Your task to perform on an android device: open app "Google Maps" Image 0: 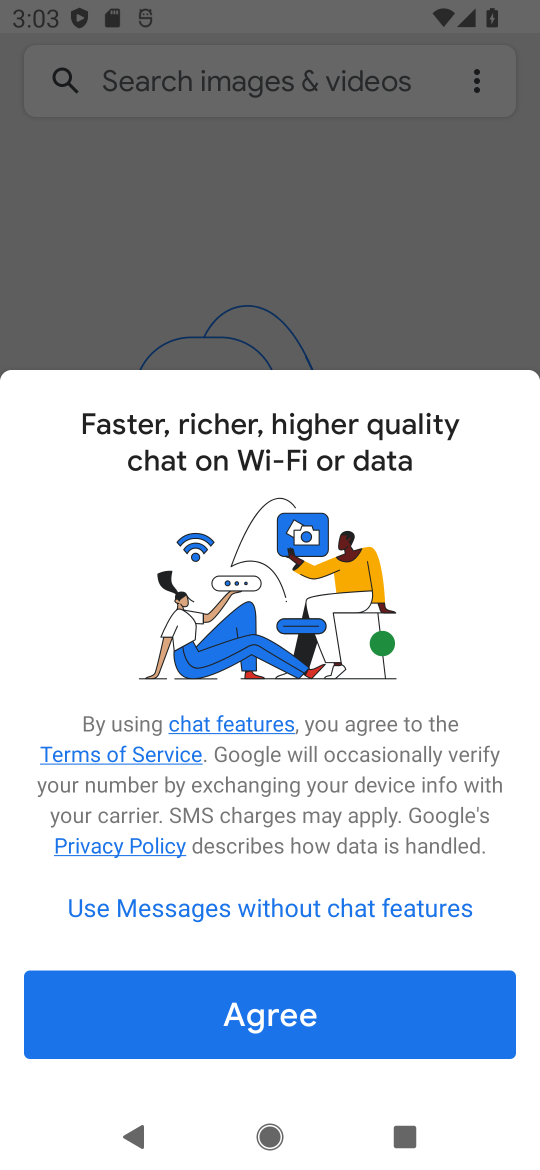
Step 0: press home button
Your task to perform on an android device: open app "Google Maps" Image 1: 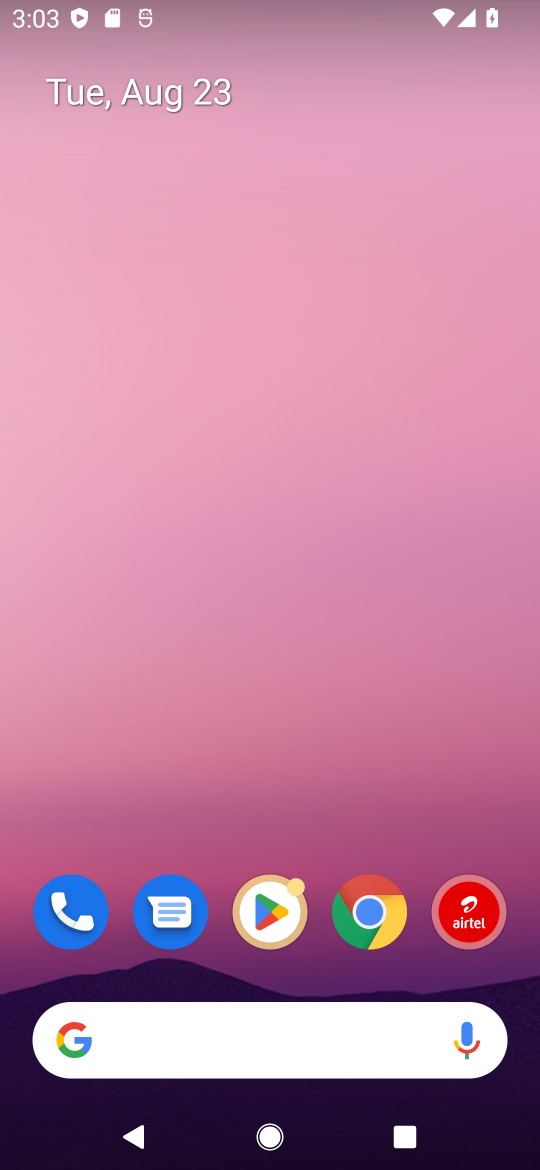
Step 1: drag from (228, 1037) to (302, 69)
Your task to perform on an android device: open app "Google Maps" Image 2: 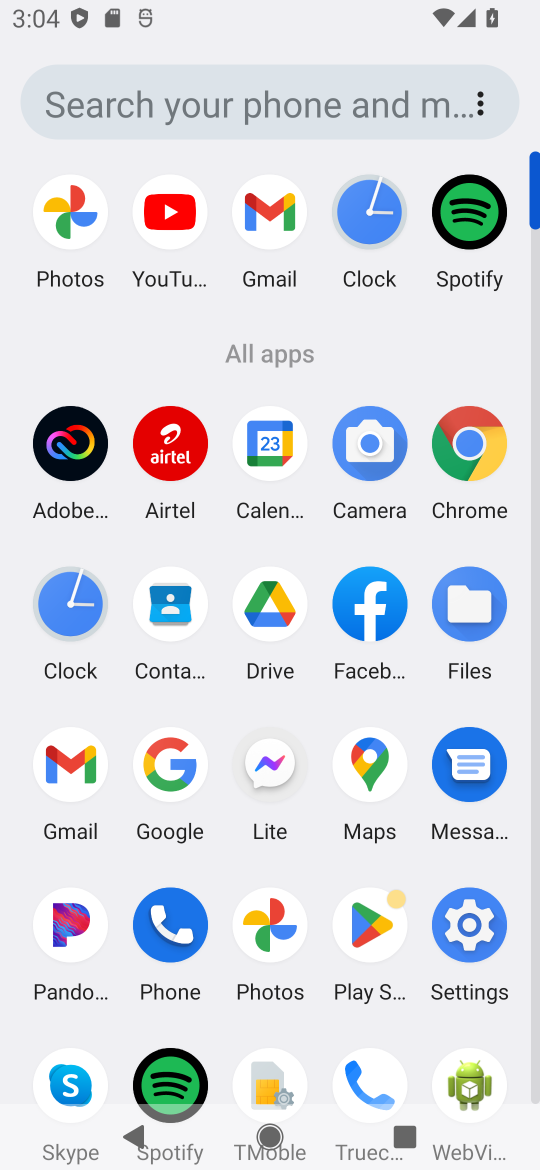
Step 2: click (374, 765)
Your task to perform on an android device: open app "Google Maps" Image 3: 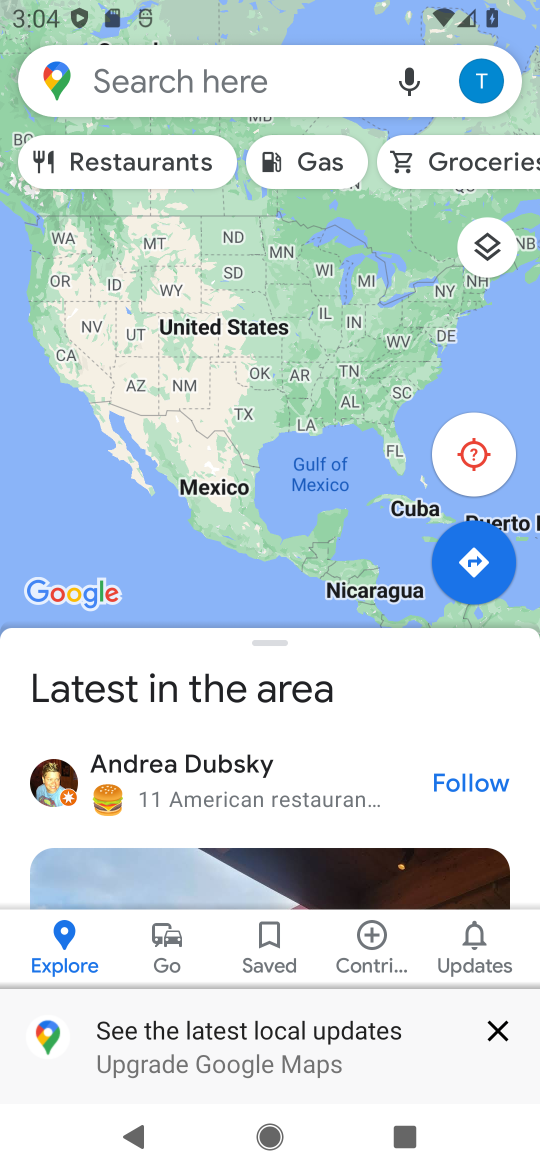
Step 3: task complete